Your task to perform on an android device: Open Chrome and go to the settings page Image 0: 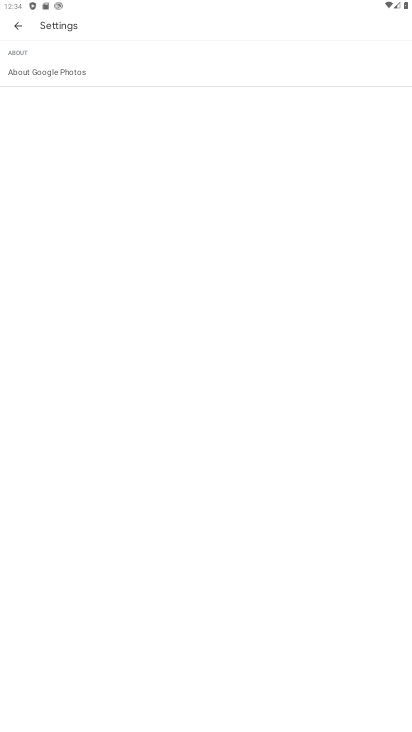
Step 0: click (138, 677)
Your task to perform on an android device: Open Chrome and go to the settings page Image 1: 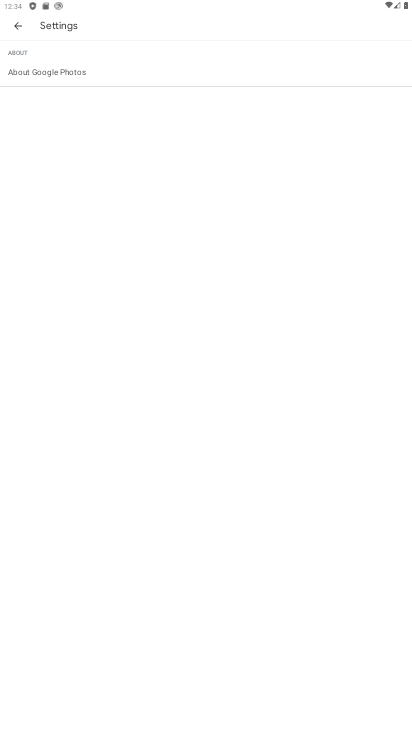
Step 1: press home button
Your task to perform on an android device: Open Chrome and go to the settings page Image 2: 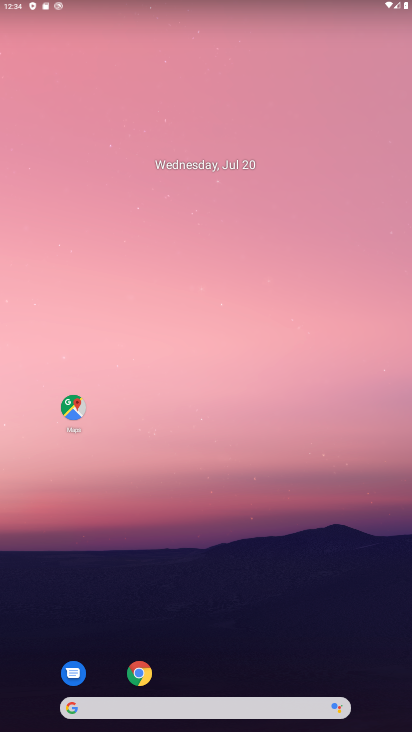
Step 2: click (135, 679)
Your task to perform on an android device: Open Chrome and go to the settings page Image 3: 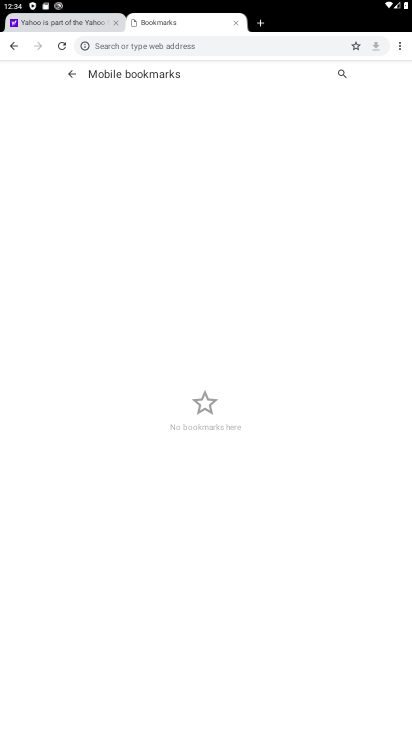
Step 3: click (394, 53)
Your task to perform on an android device: Open Chrome and go to the settings page Image 4: 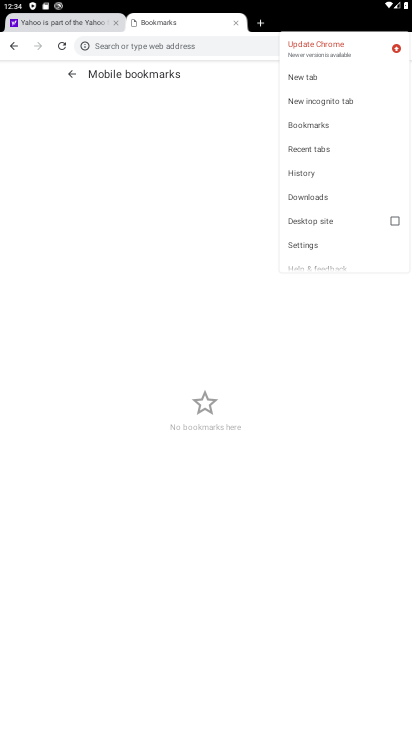
Step 4: click (306, 243)
Your task to perform on an android device: Open Chrome and go to the settings page Image 5: 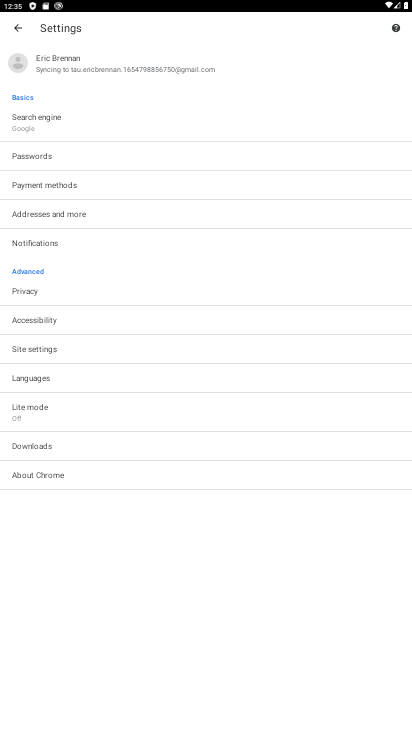
Step 5: task complete